Your task to perform on an android device: star an email in the gmail app Image 0: 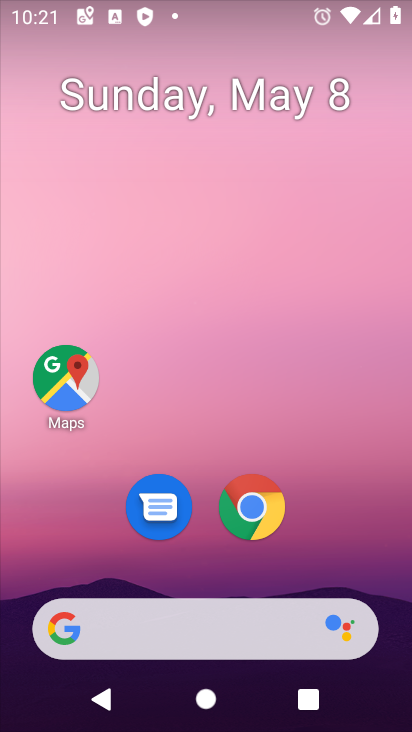
Step 0: drag from (256, 682) to (179, 47)
Your task to perform on an android device: star an email in the gmail app Image 1: 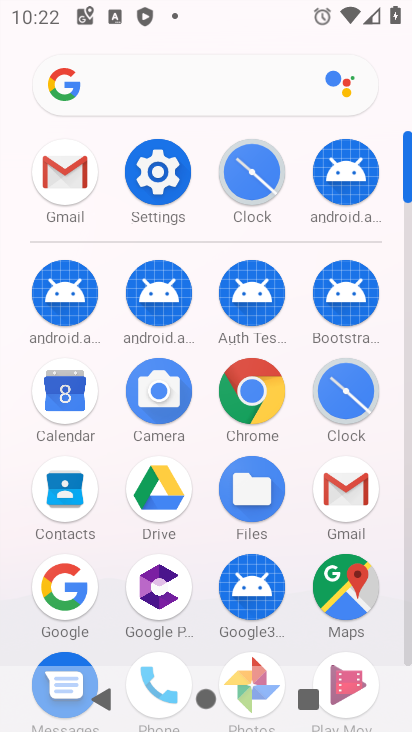
Step 1: click (331, 496)
Your task to perform on an android device: star an email in the gmail app Image 2: 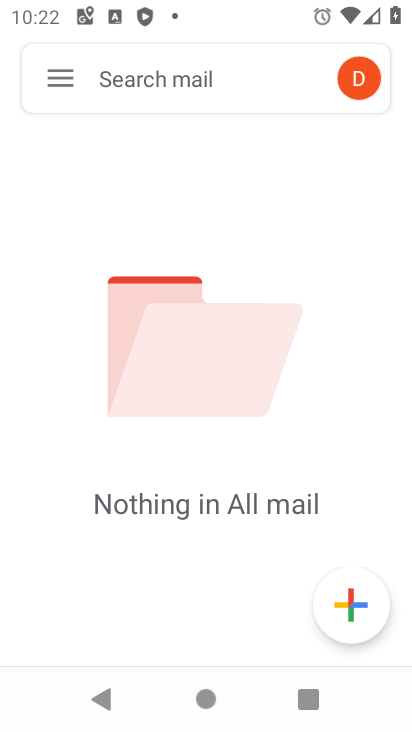
Step 2: click (51, 70)
Your task to perform on an android device: star an email in the gmail app Image 3: 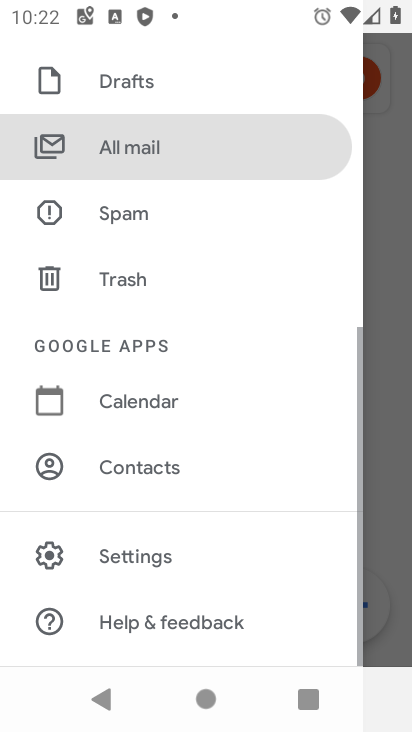
Step 3: click (147, 156)
Your task to perform on an android device: star an email in the gmail app Image 4: 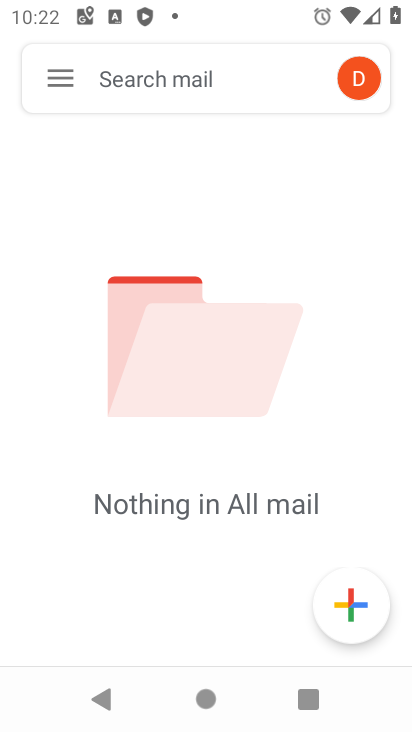
Step 4: task complete